Your task to perform on an android device: make emails show in primary in the gmail app Image 0: 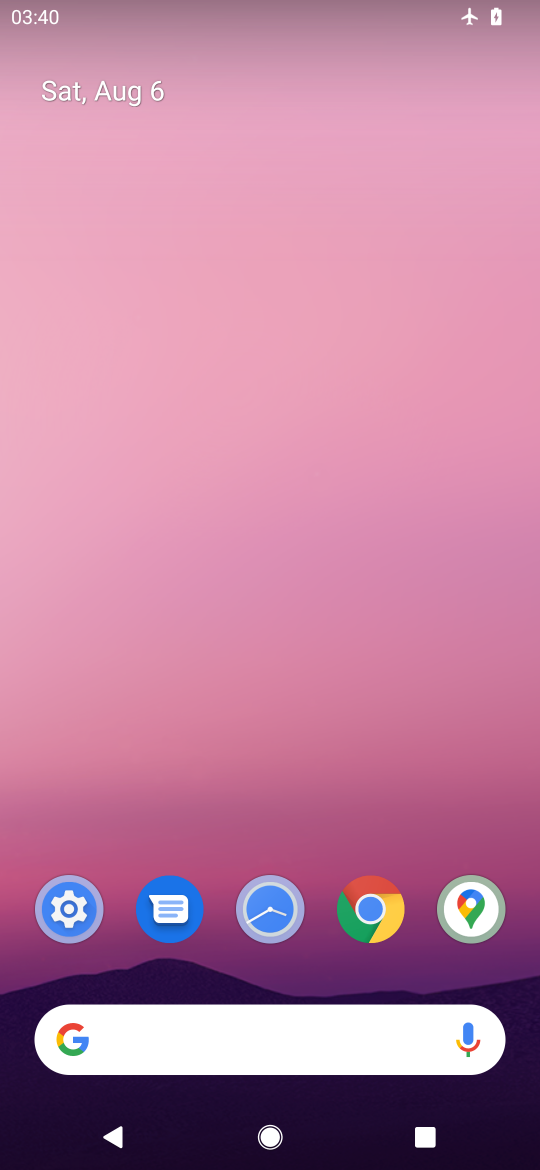
Step 0: drag from (284, 1007) to (394, 103)
Your task to perform on an android device: make emails show in primary in the gmail app Image 1: 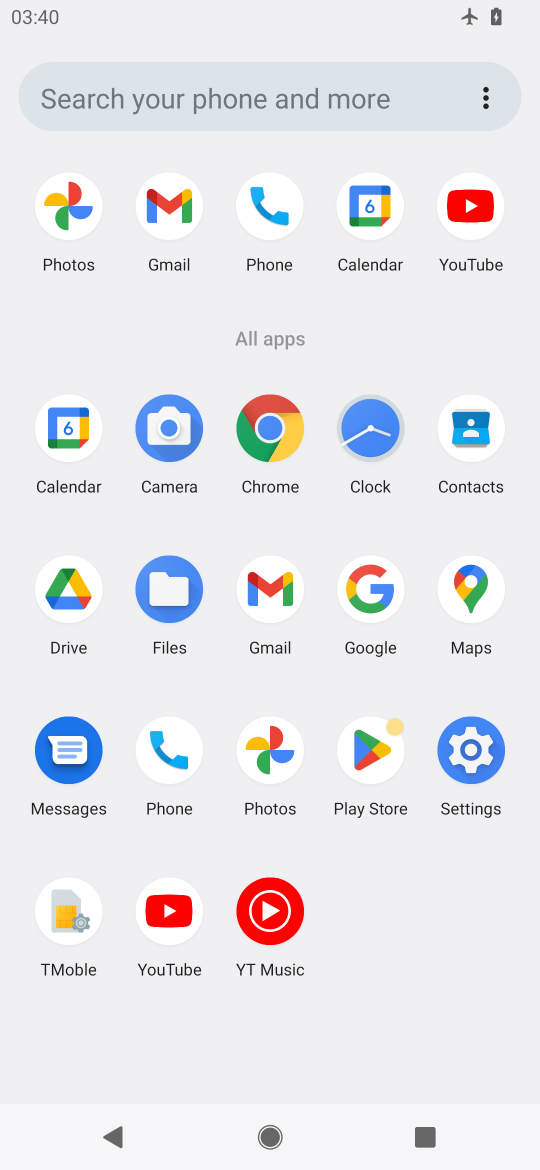
Step 1: click (158, 207)
Your task to perform on an android device: make emails show in primary in the gmail app Image 2: 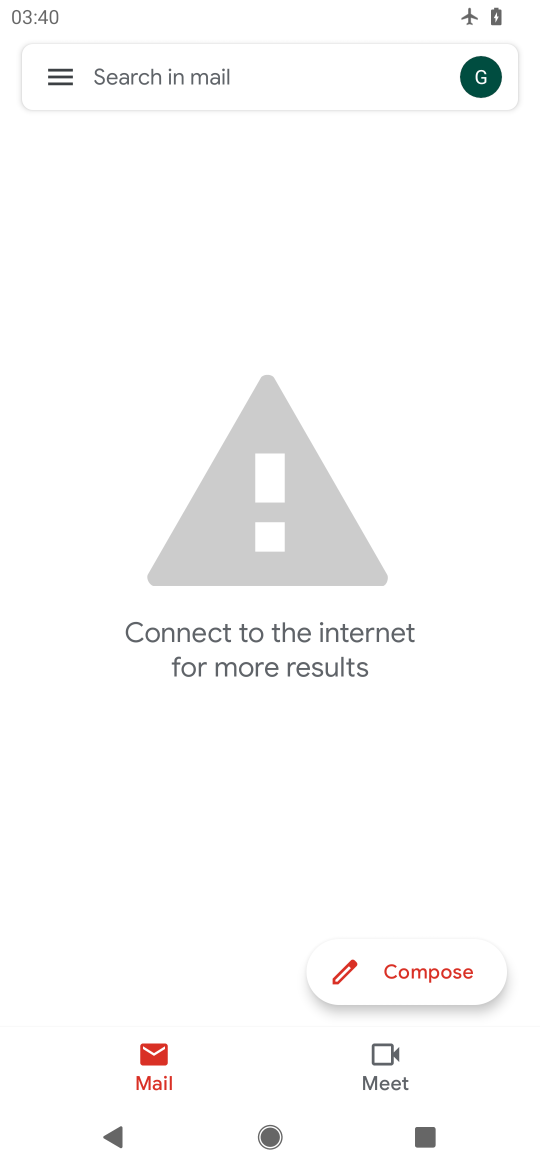
Step 2: click (63, 73)
Your task to perform on an android device: make emails show in primary in the gmail app Image 3: 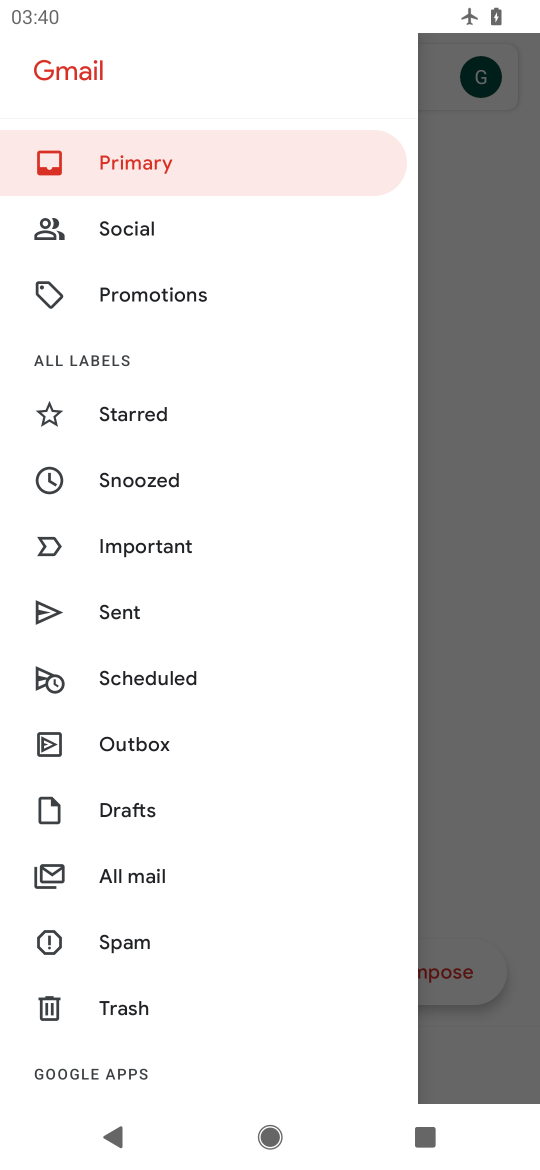
Step 3: drag from (147, 1014) to (314, 219)
Your task to perform on an android device: make emails show in primary in the gmail app Image 4: 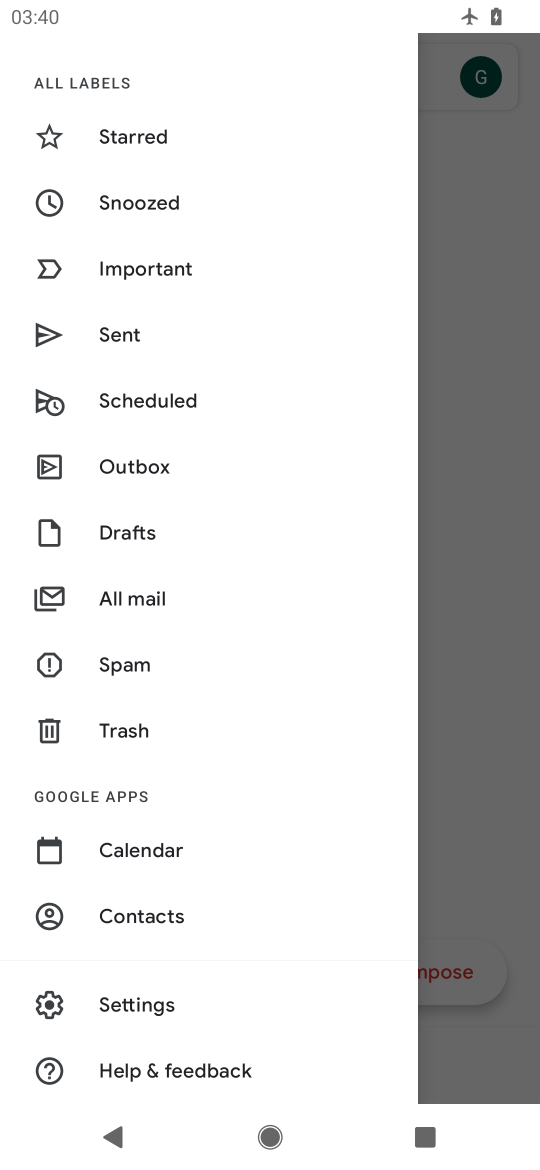
Step 4: click (128, 996)
Your task to perform on an android device: make emails show in primary in the gmail app Image 5: 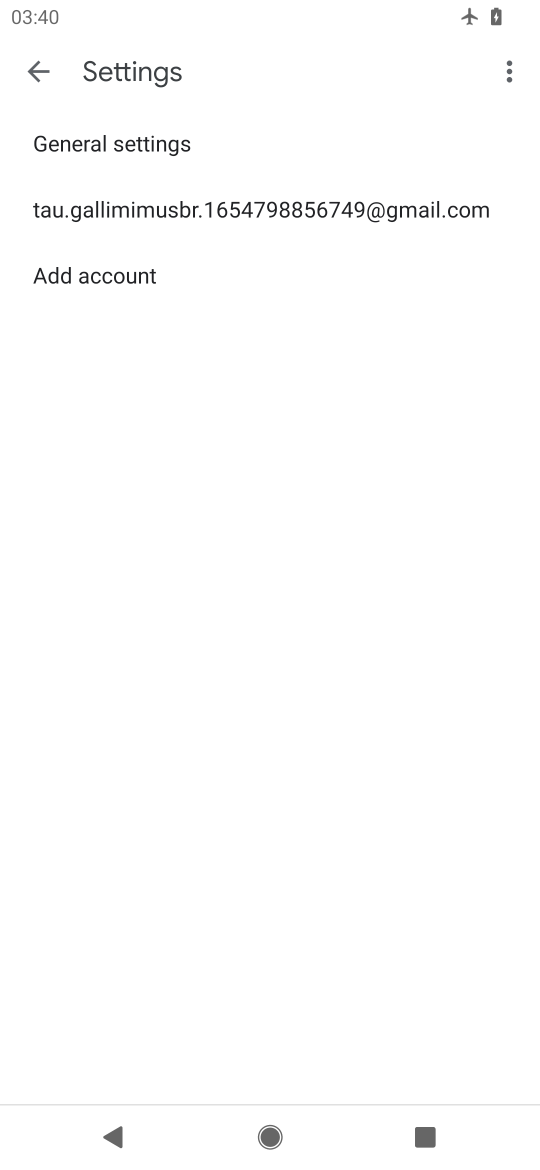
Step 5: click (356, 229)
Your task to perform on an android device: make emails show in primary in the gmail app Image 6: 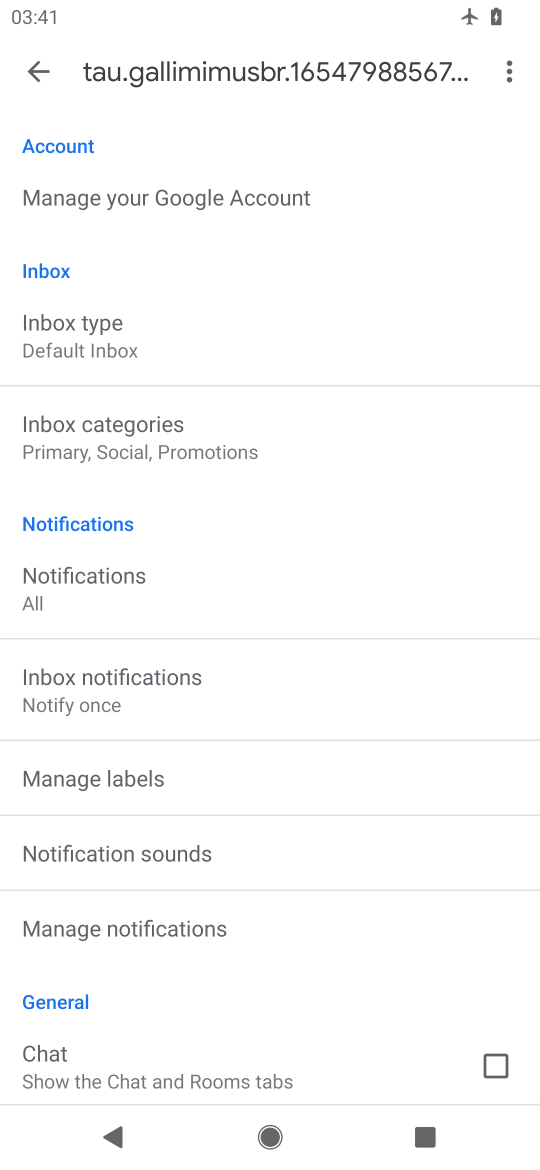
Step 6: click (183, 447)
Your task to perform on an android device: make emails show in primary in the gmail app Image 7: 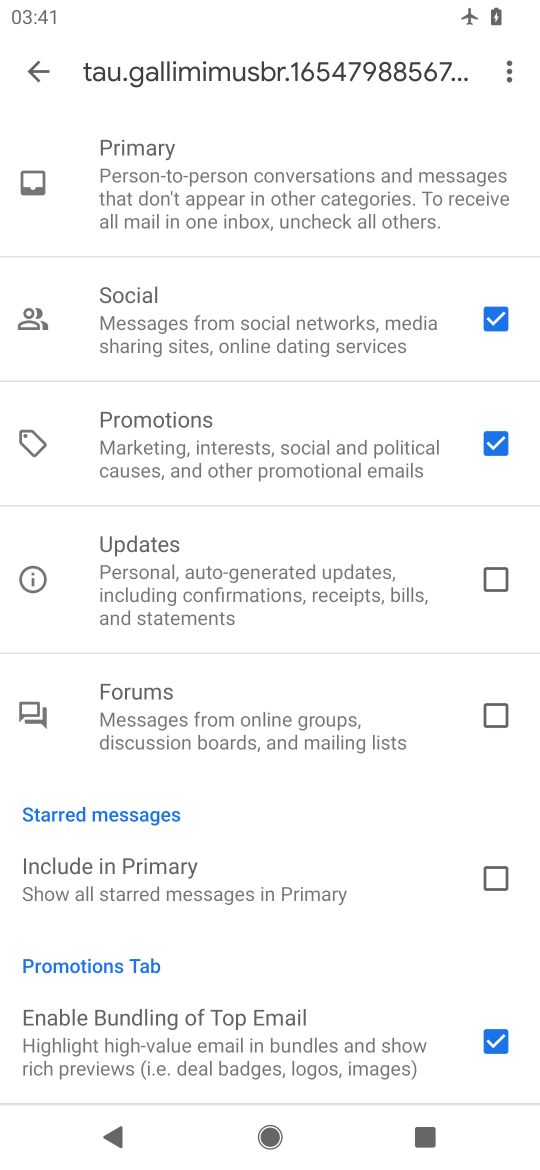
Step 7: click (510, 871)
Your task to perform on an android device: make emails show in primary in the gmail app Image 8: 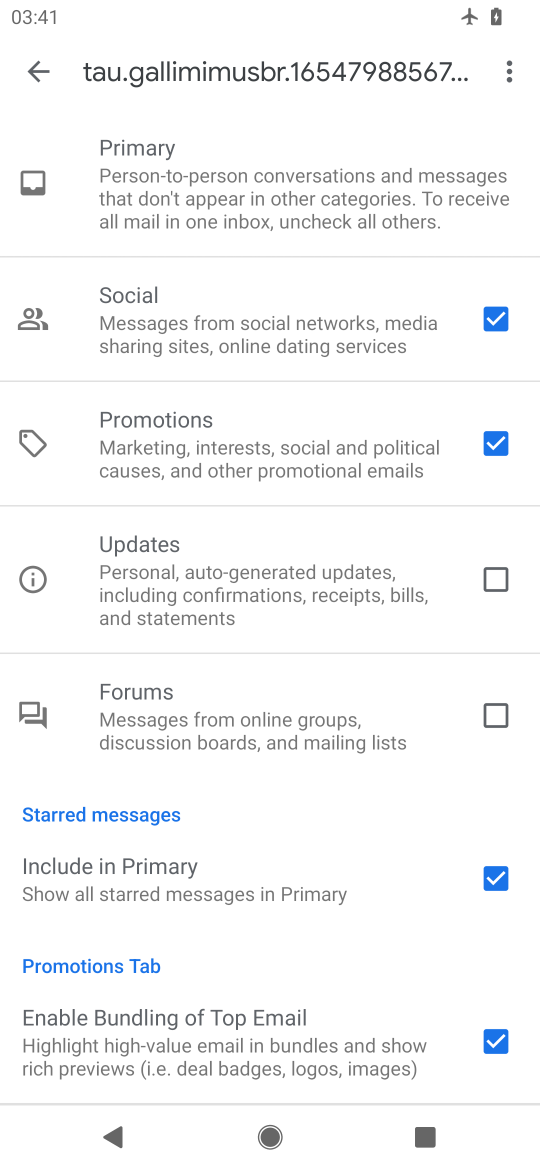
Step 8: click (490, 717)
Your task to perform on an android device: make emails show in primary in the gmail app Image 9: 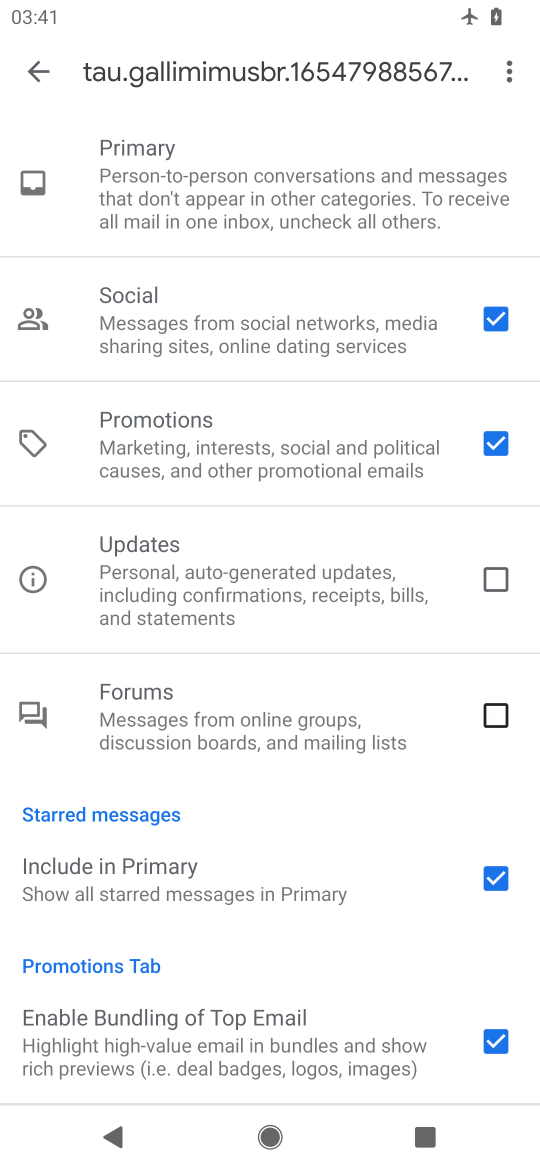
Step 9: click (492, 585)
Your task to perform on an android device: make emails show in primary in the gmail app Image 10: 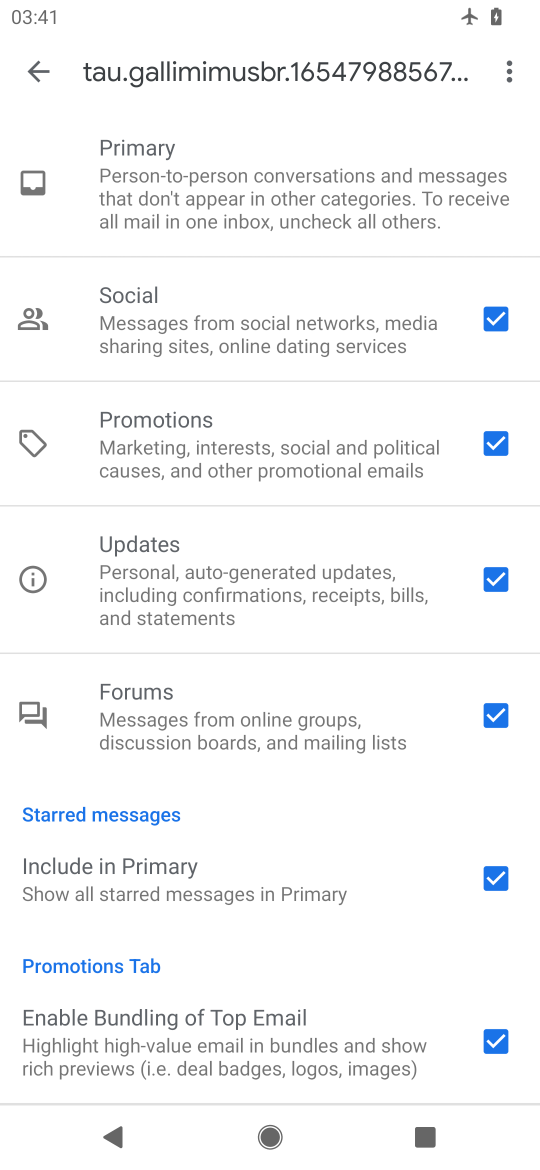
Step 10: task complete